Your task to perform on an android device: add a contact in the contacts app Image 0: 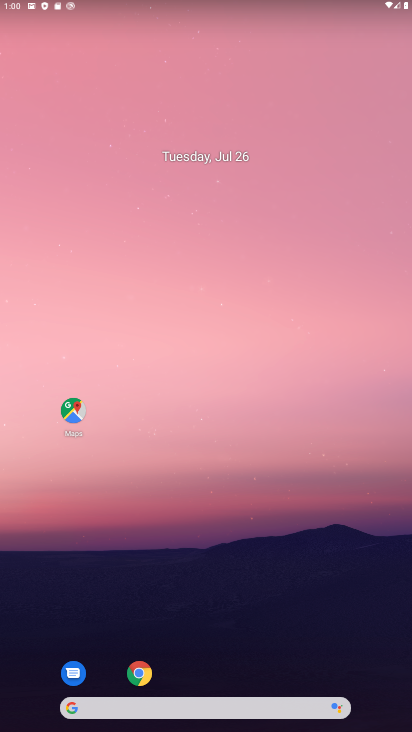
Step 0: drag from (297, 587) to (309, 13)
Your task to perform on an android device: add a contact in the contacts app Image 1: 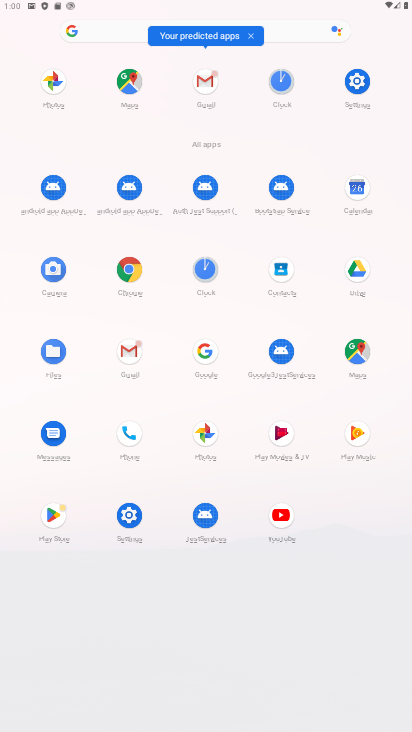
Step 1: click (289, 268)
Your task to perform on an android device: add a contact in the contacts app Image 2: 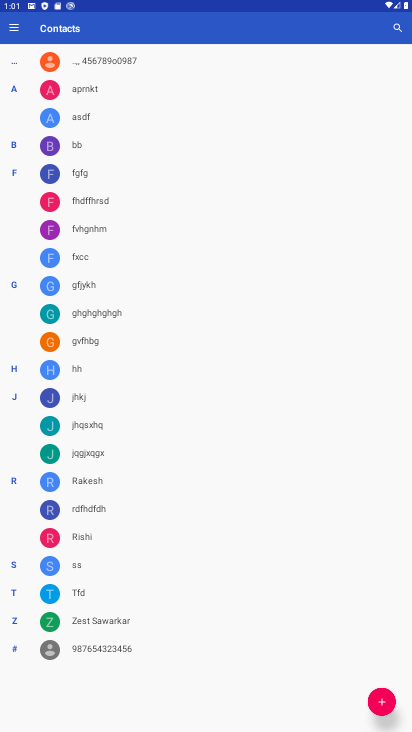
Step 2: click (379, 701)
Your task to perform on an android device: add a contact in the contacts app Image 3: 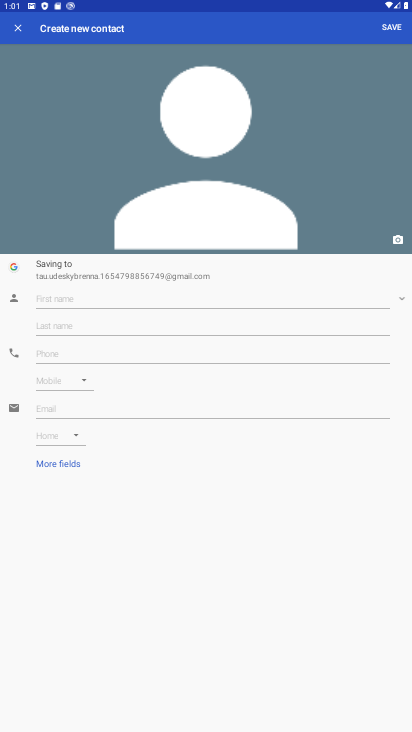
Step 3: click (60, 289)
Your task to perform on an android device: add a contact in the contacts app Image 4: 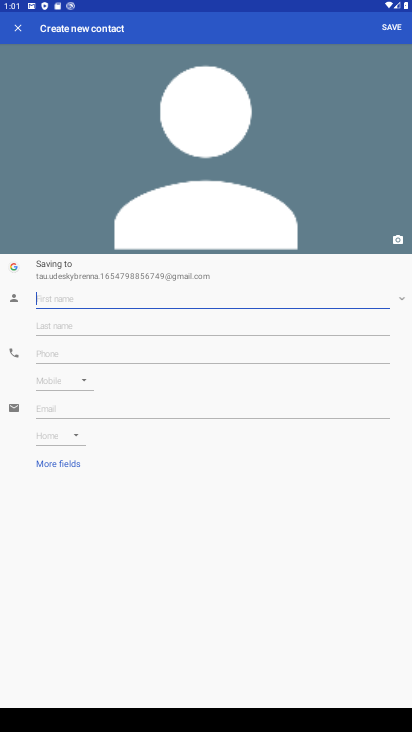
Step 4: type "mjkloi"
Your task to perform on an android device: add a contact in the contacts app Image 5: 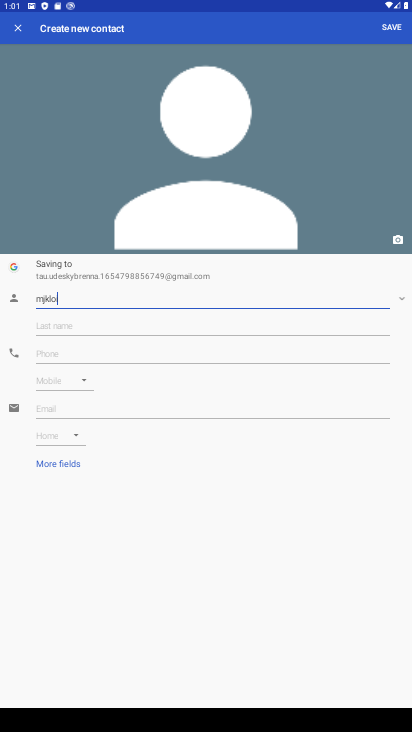
Step 5: click (113, 355)
Your task to perform on an android device: add a contact in the contacts app Image 6: 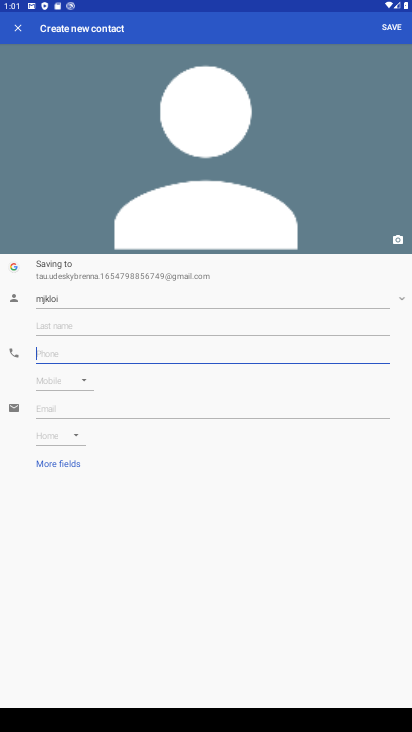
Step 6: type "2121345678"
Your task to perform on an android device: add a contact in the contacts app Image 7: 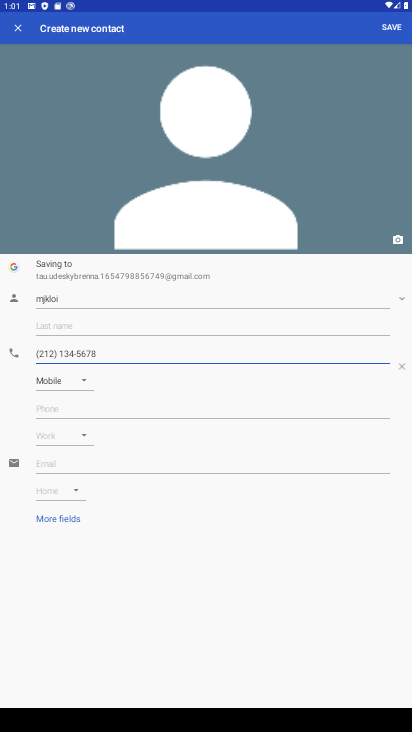
Step 7: click (389, 32)
Your task to perform on an android device: add a contact in the contacts app Image 8: 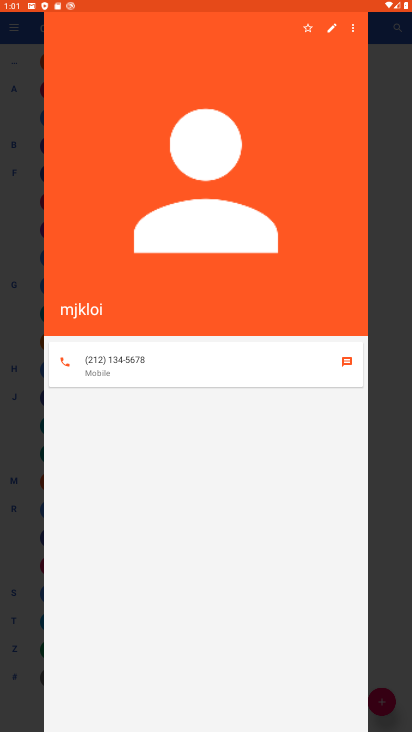
Step 8: task complete